Your task to perform on an android device: turn on sleep mode Image 0: 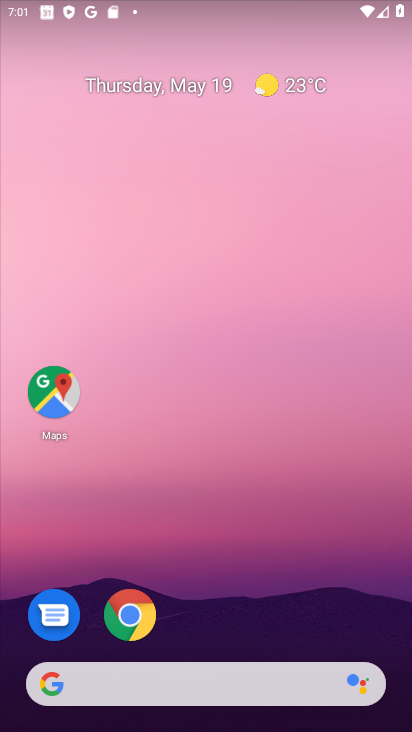
Step 0: drag from (357, 609) to (307, 12)
Your task to perform on an android device: turn on sleep mode Image 1: 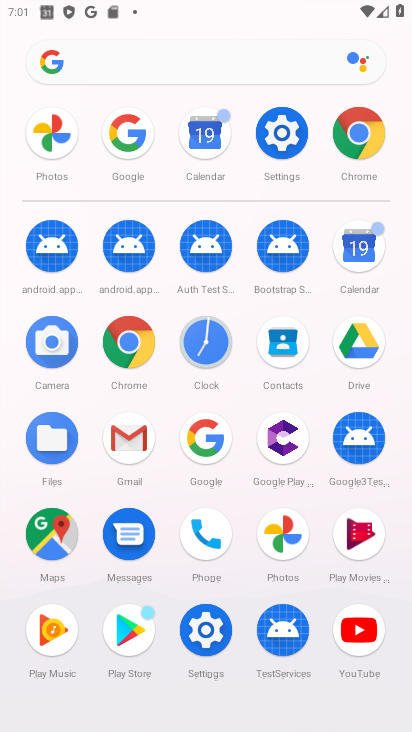
Step 1: click (293, 134)
Your task to perform on an android device: turn on sleep mode Image 2: 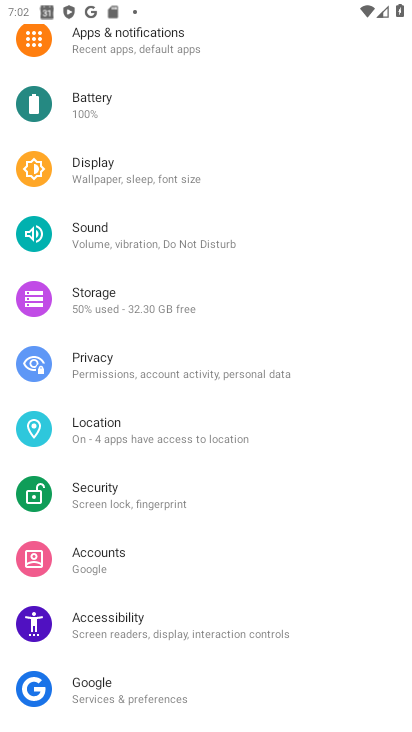
Step 2: task complete